Your task to perform on an android device: Go to location settings Image 0: 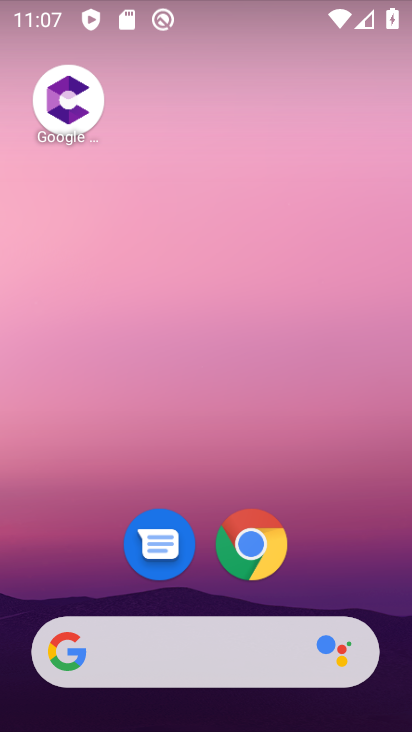
Step 0: drag from (386, 463) to (346, 7)
Your task to perform on an android device: Go to location settings Image 1: 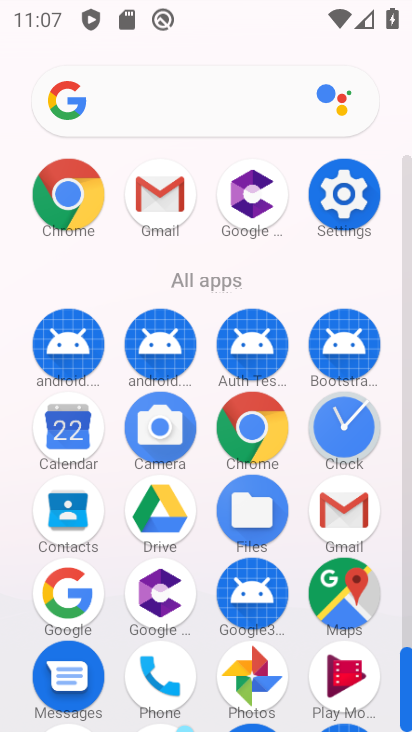
Step 1: click (351, 192)
Your task to perform on an android device: Go to location settings Image 2: 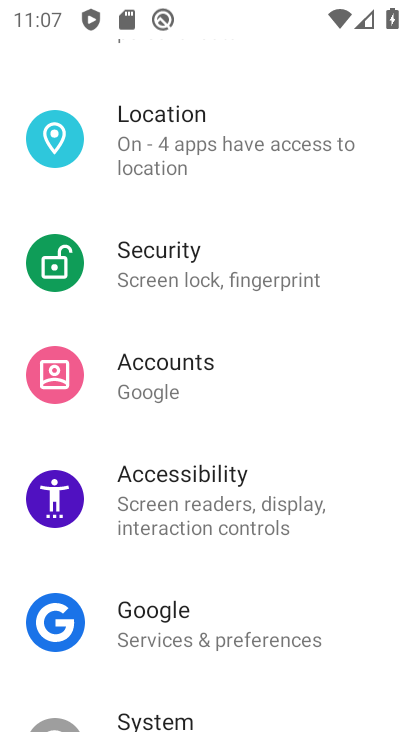
Step 2: click (198, 158)
Your task to perform on an android device: Go to location settings Image 3: 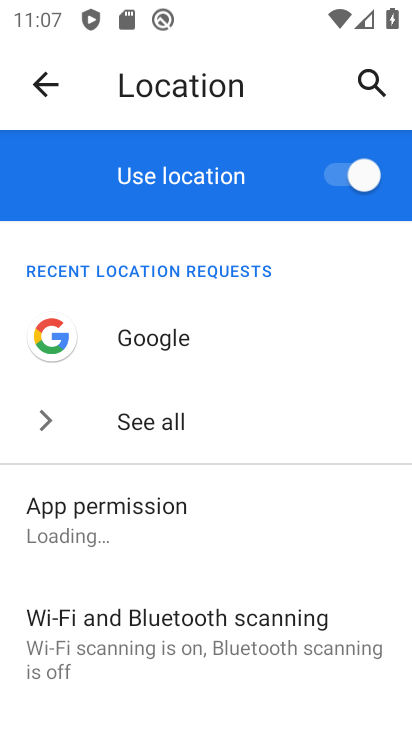
Step 3: task complete